Your task to perform on an android device: Go to privacy settings Image 0: 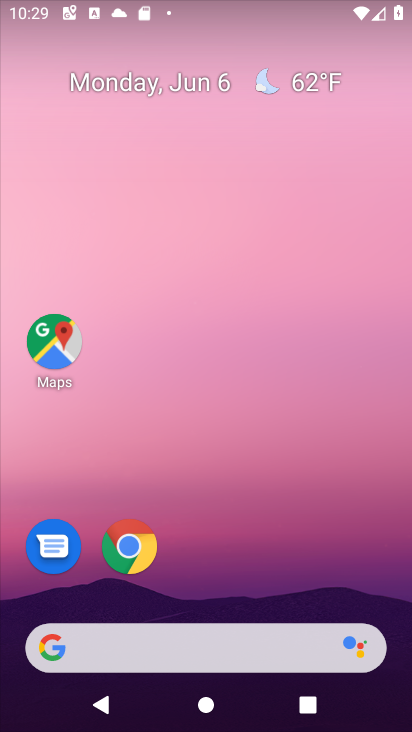
Step 0: drag from (404, 620) to (272, 71)
Your task to perform on an android device: Go to privacy settings Image 1: 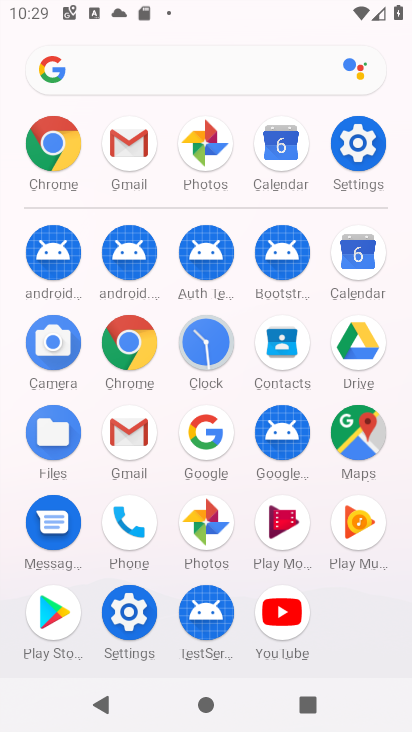
Step 1: click (129, 613)
Your task to perform on an android device: Go to privacy settings Image 2: 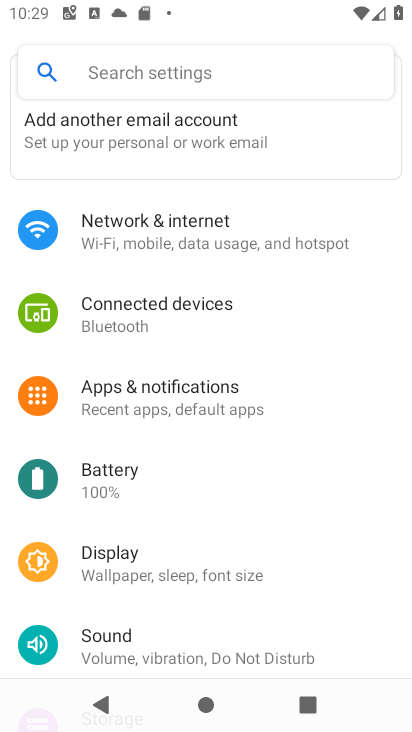
Step 2: drag from (319, 606) to (275, 227)
Your task to perform on an android device: Go to privacy settings Image 3: 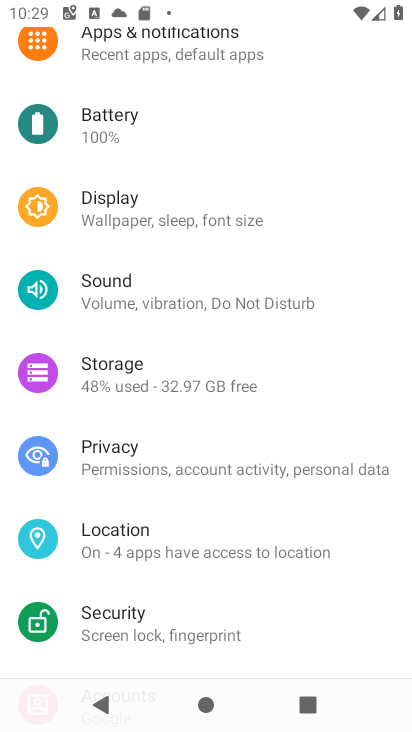
Step 3: click (107, 457)
Your task to perform on an android device: Go to privacy settings Image 4: 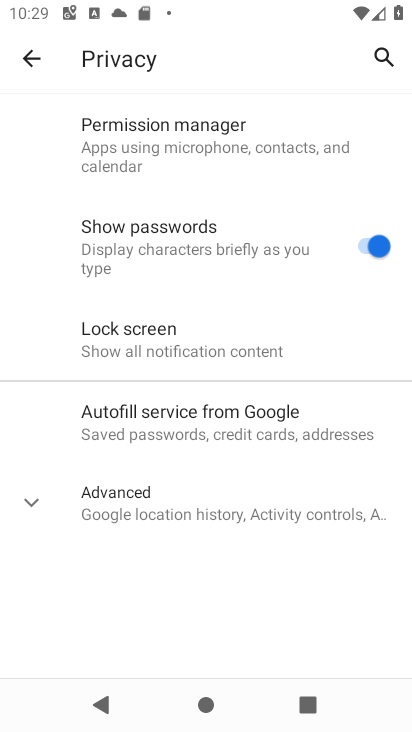
Step 4: click (31, 504)
Your task to perform on an android device: Go to privacy settings Image 5: 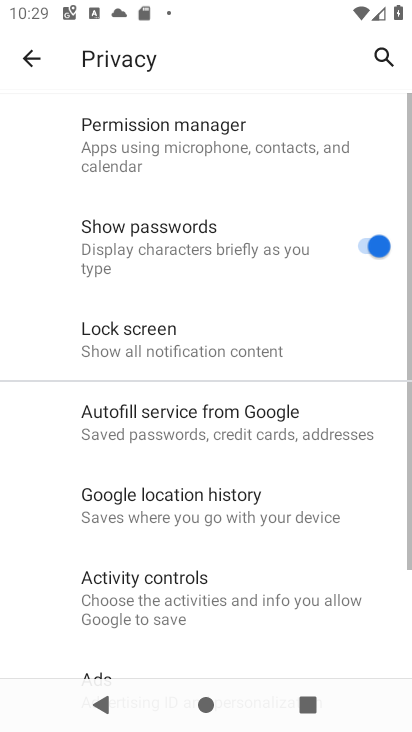
Step 5: task complete